Your task to perform on an android device: turn on location history Image 0: 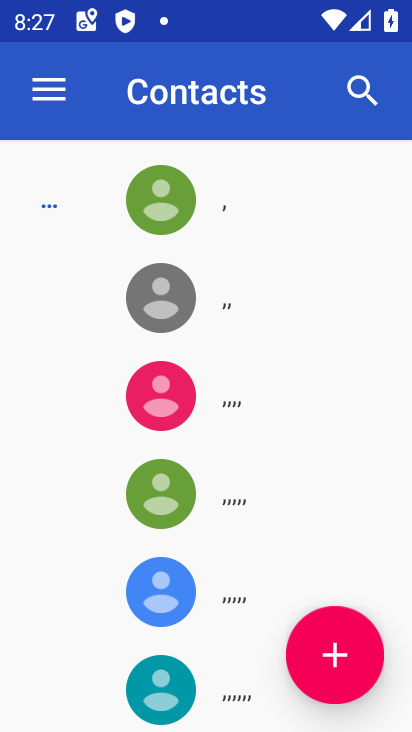
Step 0: press home button
Your task to perform on an android device: turn on location history Image 1: 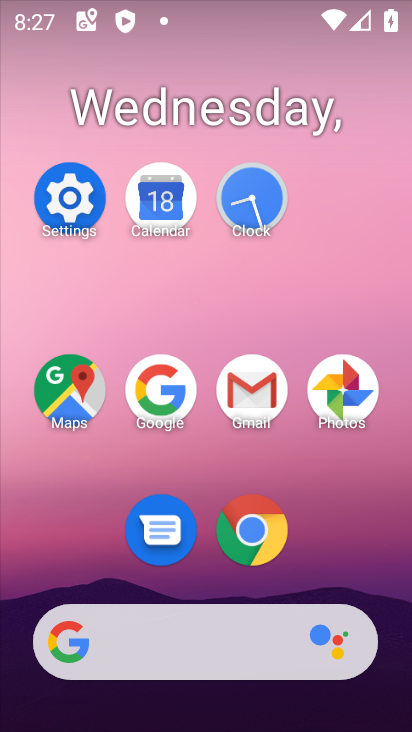
Step 1: click (59, 196)
Your task to perform on an android device: turn on location history Image 2: 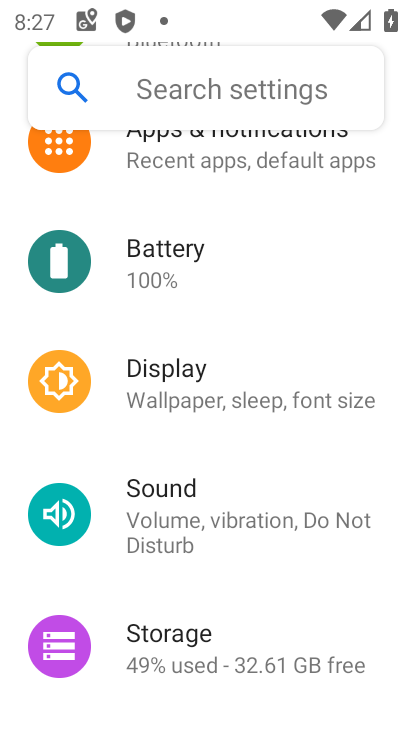
Step 2: drag from (250, 603) to (282, 265)
Your task to perform on an android device: turn on location history Image 3: 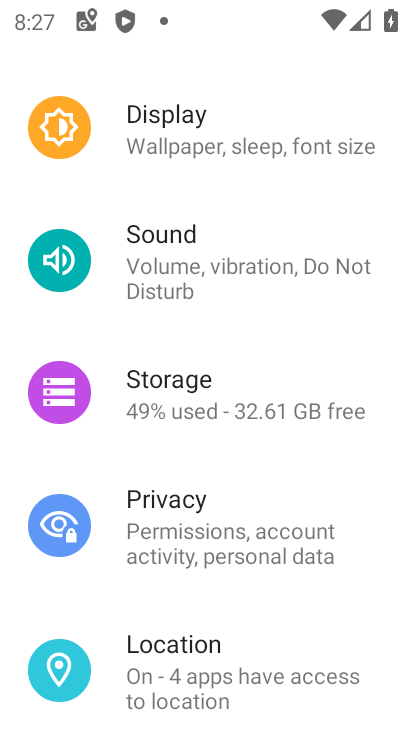
Step 3: drag from (248, 588) to (270, 273)
Your task to perform on an android device: turn on location history Image 4: 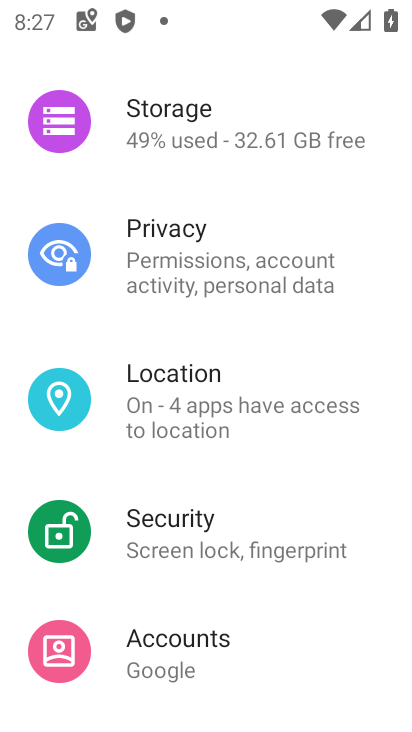
Step 4: click (246, 387)
Your task to perform on an android device: turn on location history Image 5: 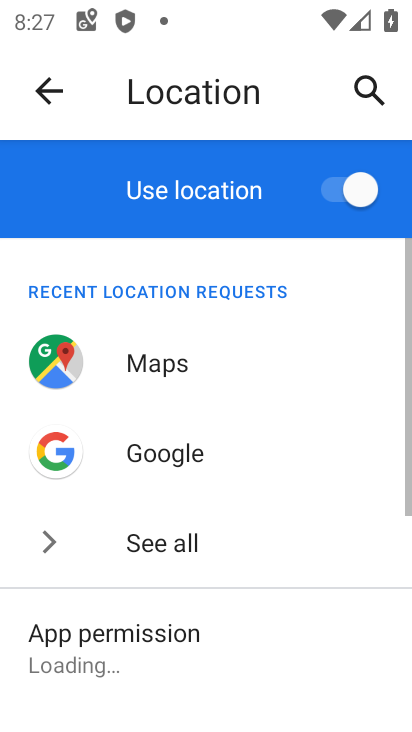
Step 5: drag from (240, 611) to (252, 164)
Your task to perform on an android device: turn on location history Image 6: 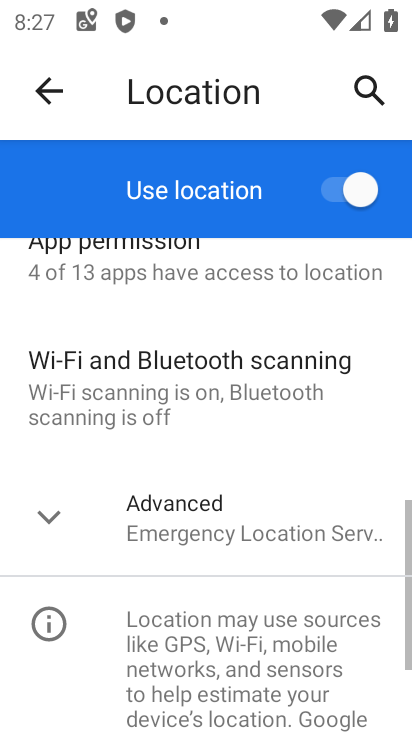
Step 6: click (194, 518)
Your task to perform on an android device: turn on location history Image 7: 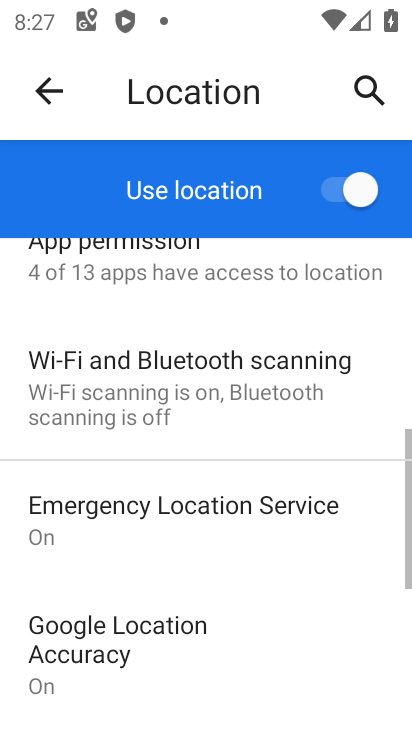
Step 7: drag from (173, 642) to (221, 233)
Your task to perform on an android device: turn on location history Image 8: 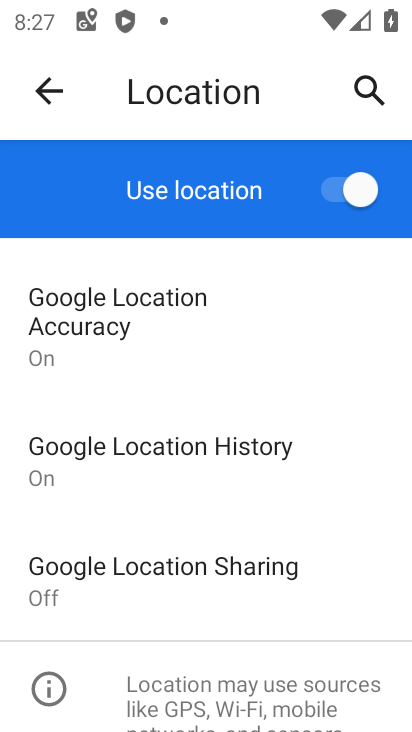
Step 8: click (201, 454)
Your task to perform on an android device: turn on location history Image 9: 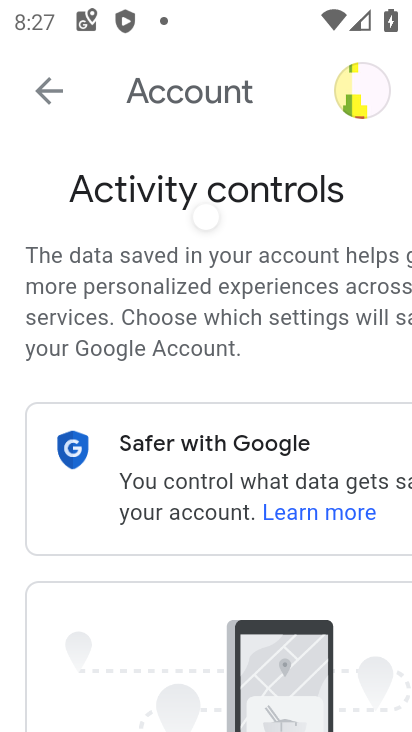
Step 9: drag from (189, 583) to (223, 225)
Your task to perform on an android device: turn on location history Image 10: 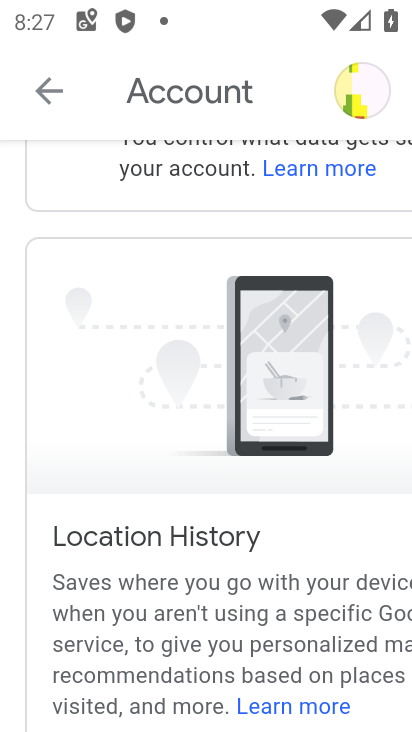
Step 10: drag from (200, 567) to (221, 218)
Your task to perform on an android device: turn on location history Image 11: 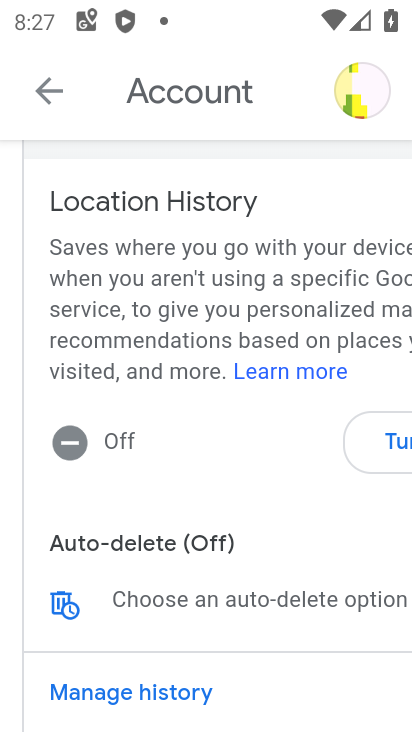
Step 11: click (397, 435)
Your task to perform on an android device: turn on location history Image 12: 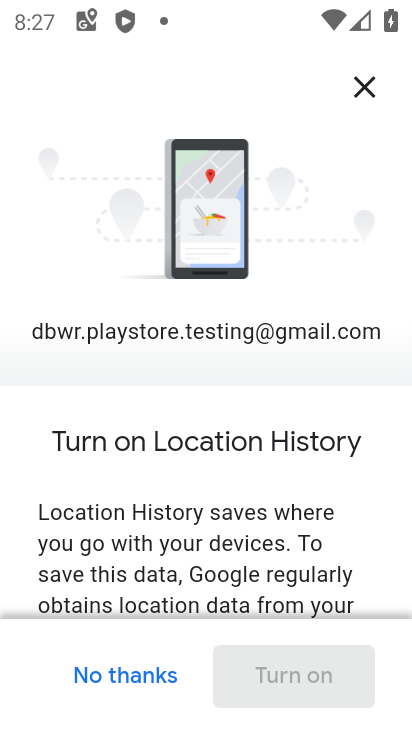
Step 12: drag from (238, 604) to (285, 223)
Your task to perform on an android device: turn on location history Image 13: 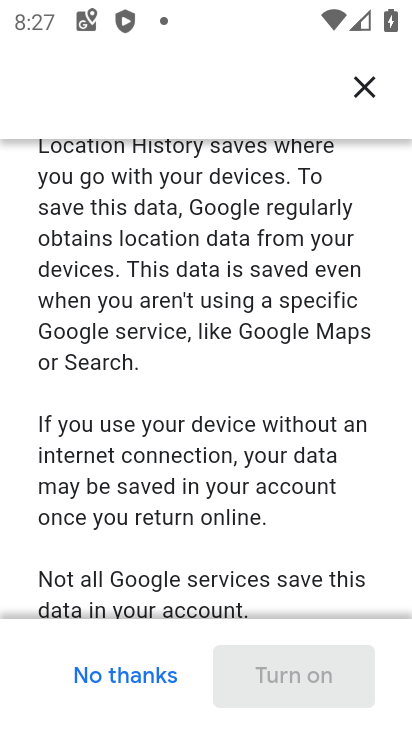
Step 13: drag from (267, 560) to (291, 173)
Your task to perform on an android device: turn on location history Image 14: 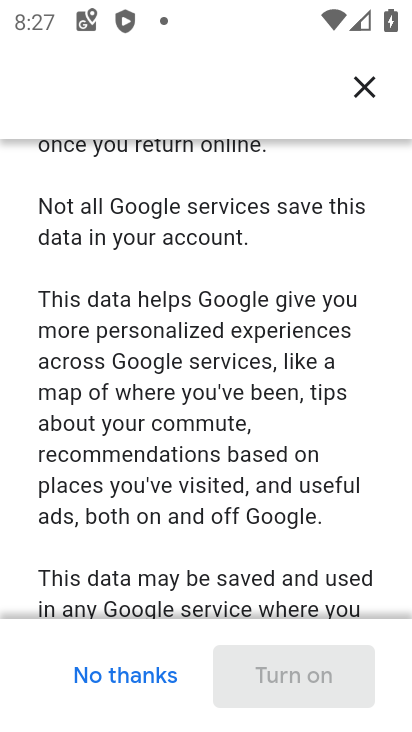
Step 14: drag from (285, 547) to (333, 198)
Your task to perform on an android device: turn on location history Image 15: 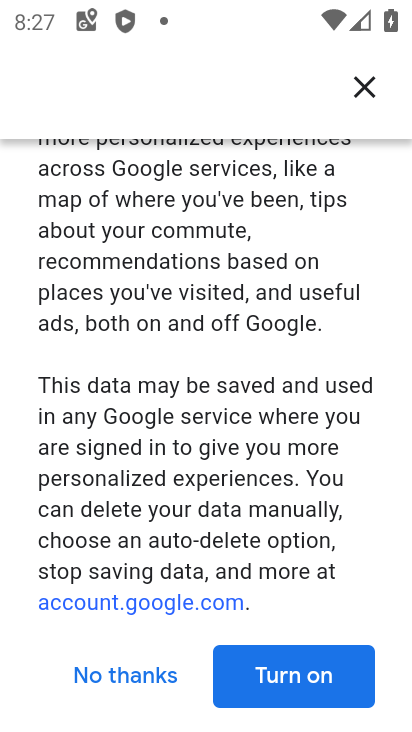
Step 15: click (259, 663)
Your task to perform on an android device: turn on location history Image 16: 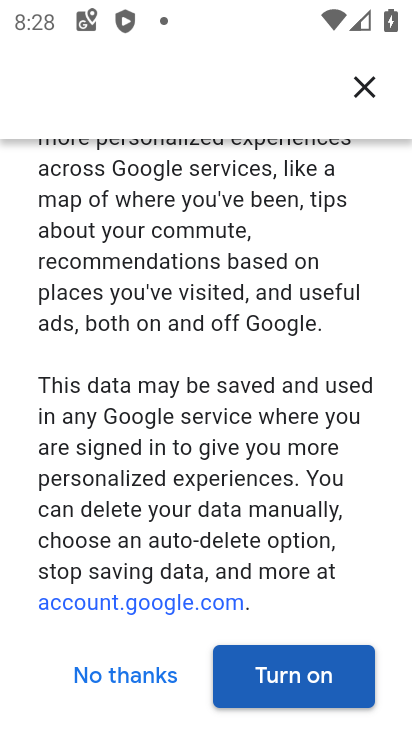
Step 16: click (329, 671)
Your task to perform on an android device: turn on location history Image 17: 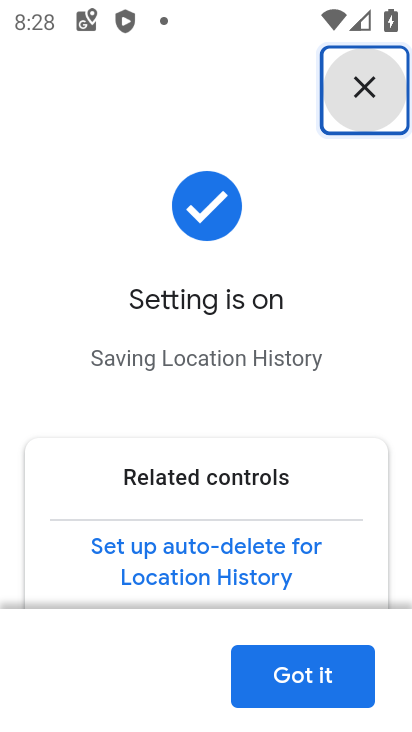
Step 17: click (310, 673)
Your task to perform on an android device: turn on location history Image 18: 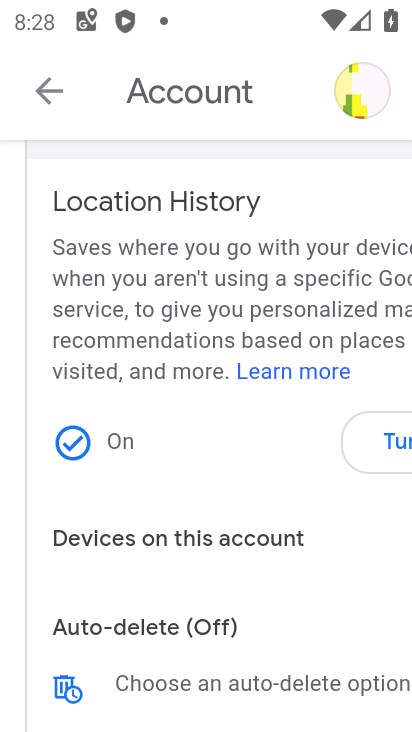
Step 18: task complete